Your task to perform on an android device: toggle translation in the chrome app Image 0: 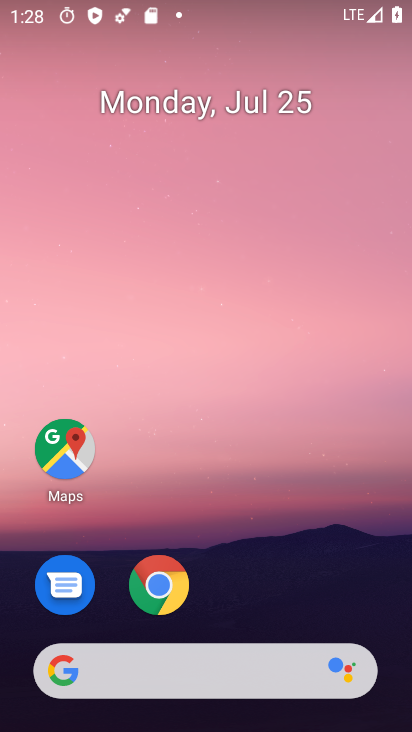
Step 0: click (155, 587)
Your task to perform on an android device: toggle translation in the chrome app Image 1: 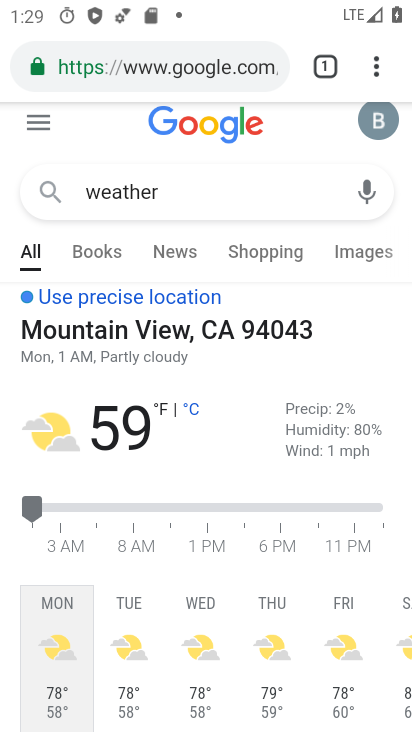
Step 1: drag from (380, 65) to (180, 588)
Your task to perform on an android device: toggle translation in the chrome app Image 2: 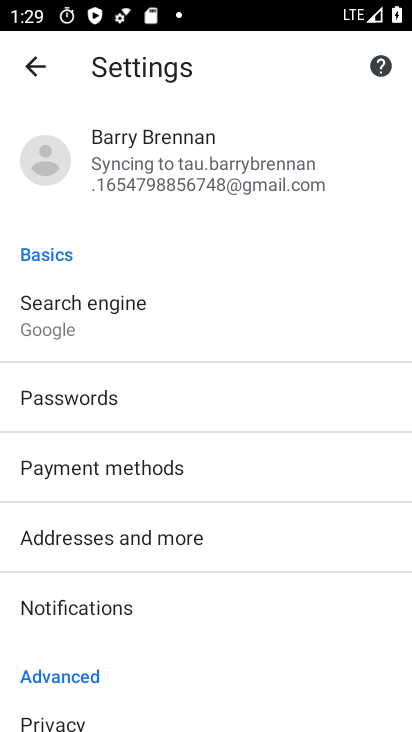
Step 2: drag from (180, 588) to (122, 50)
Your task to perform on an android device: toggle translation in the chrome app Image 3: 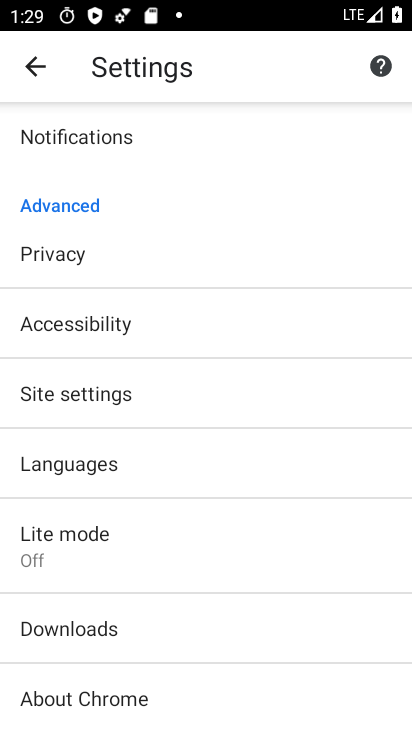
Step 3: click (131, 468)
Your task to perform on an android device: toggle translation in the chrome app Image 4: 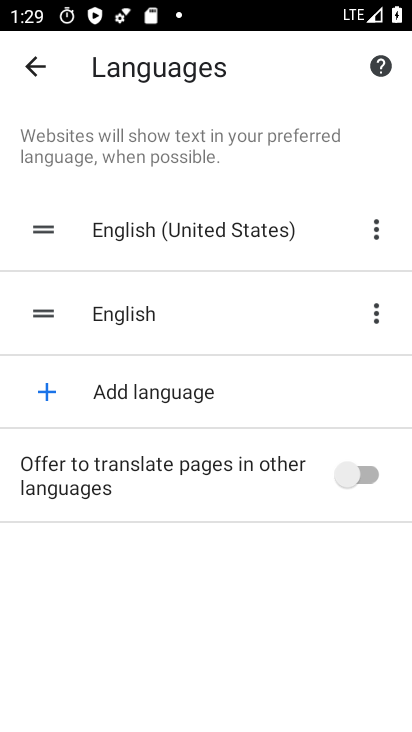
Step 4: click (364, 475)
Your task to perform on an android device: toggle translation in the chrome app Image 5: 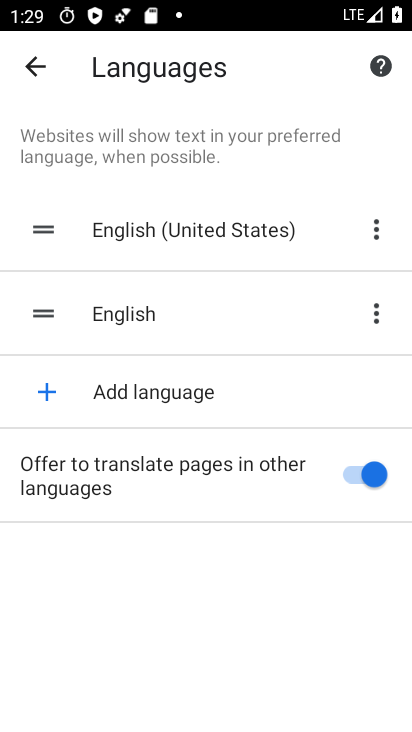
Step 5: task complete